Your task to perform on an android device: open app "VLC for Android" Image 0: 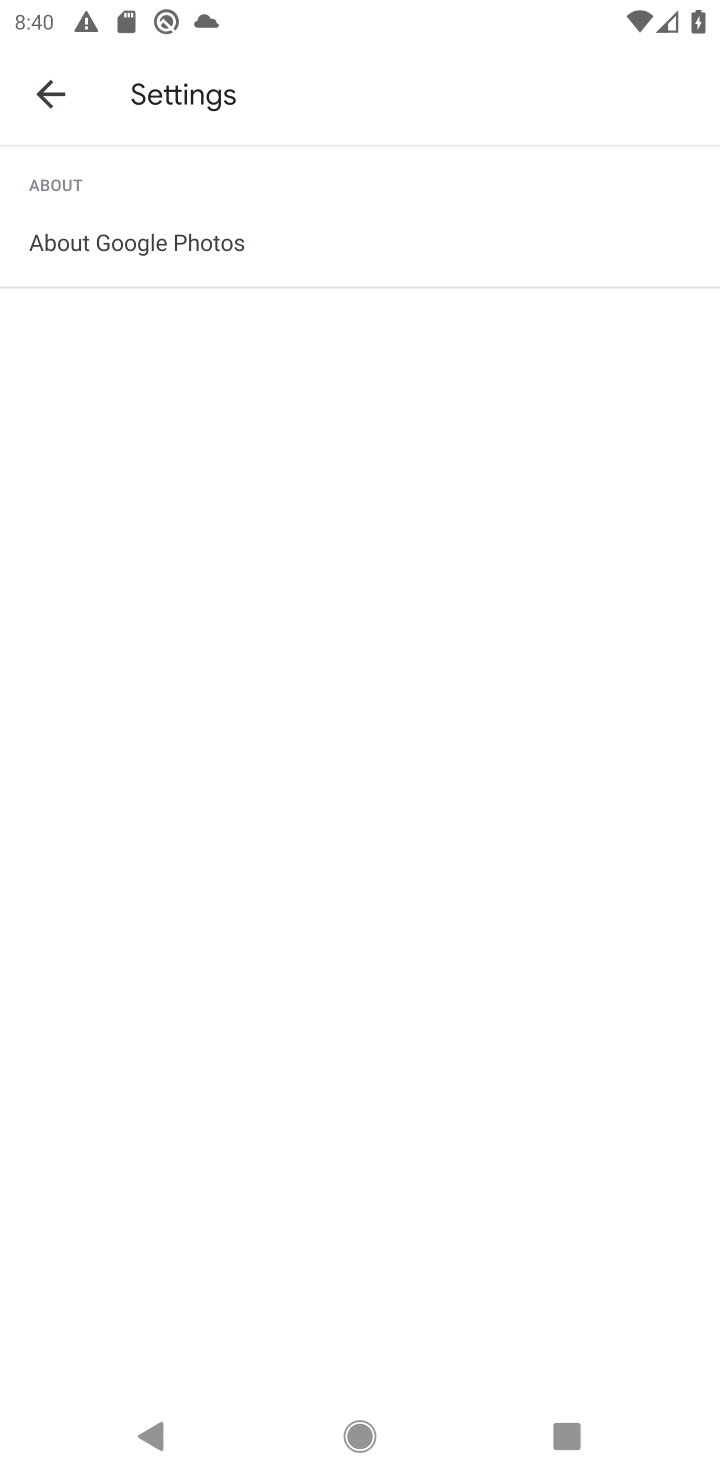
Step 0: press home button
Your task to perform on an android device: open app "VLC for Android" Image 1: 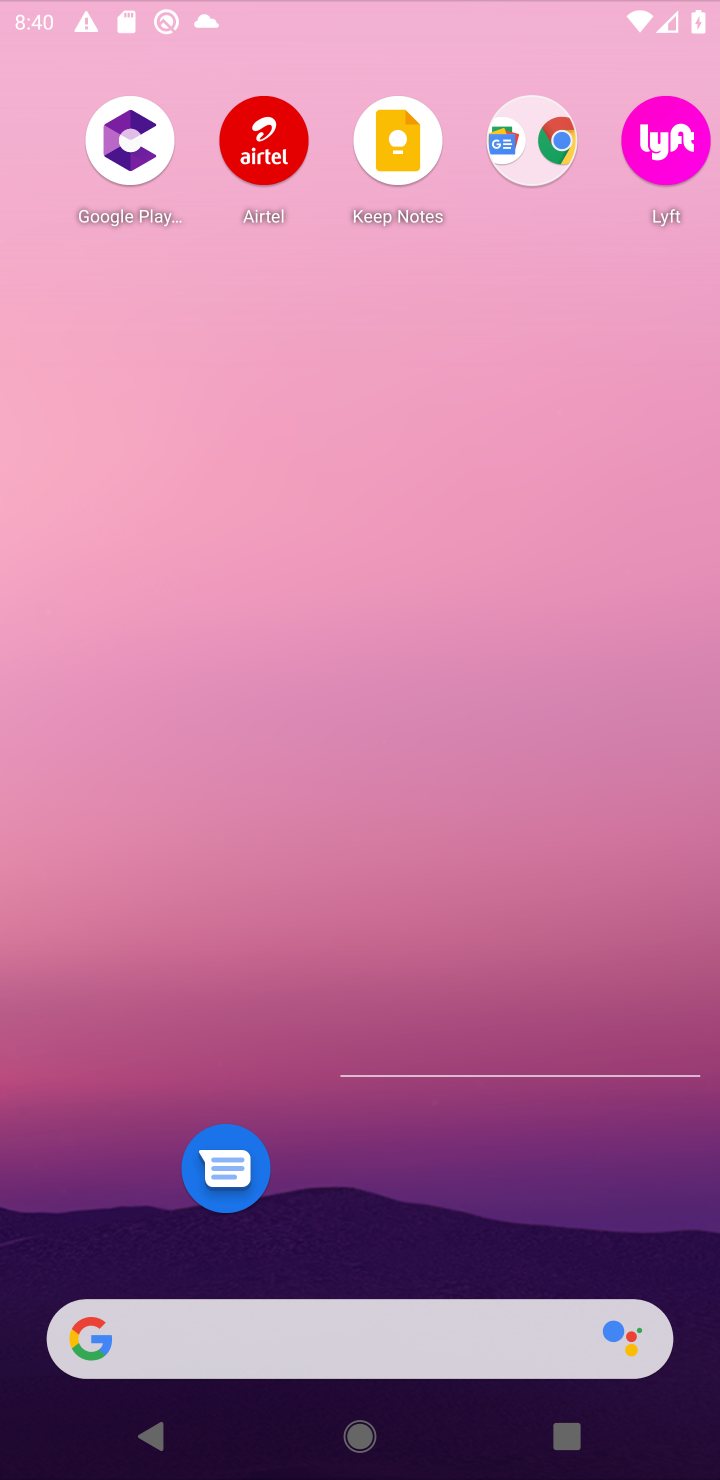
Step 1: drag from (434, 1327) to (620, 8)
Your task to perform on an android device: open app "VLC for Android" Image 2: 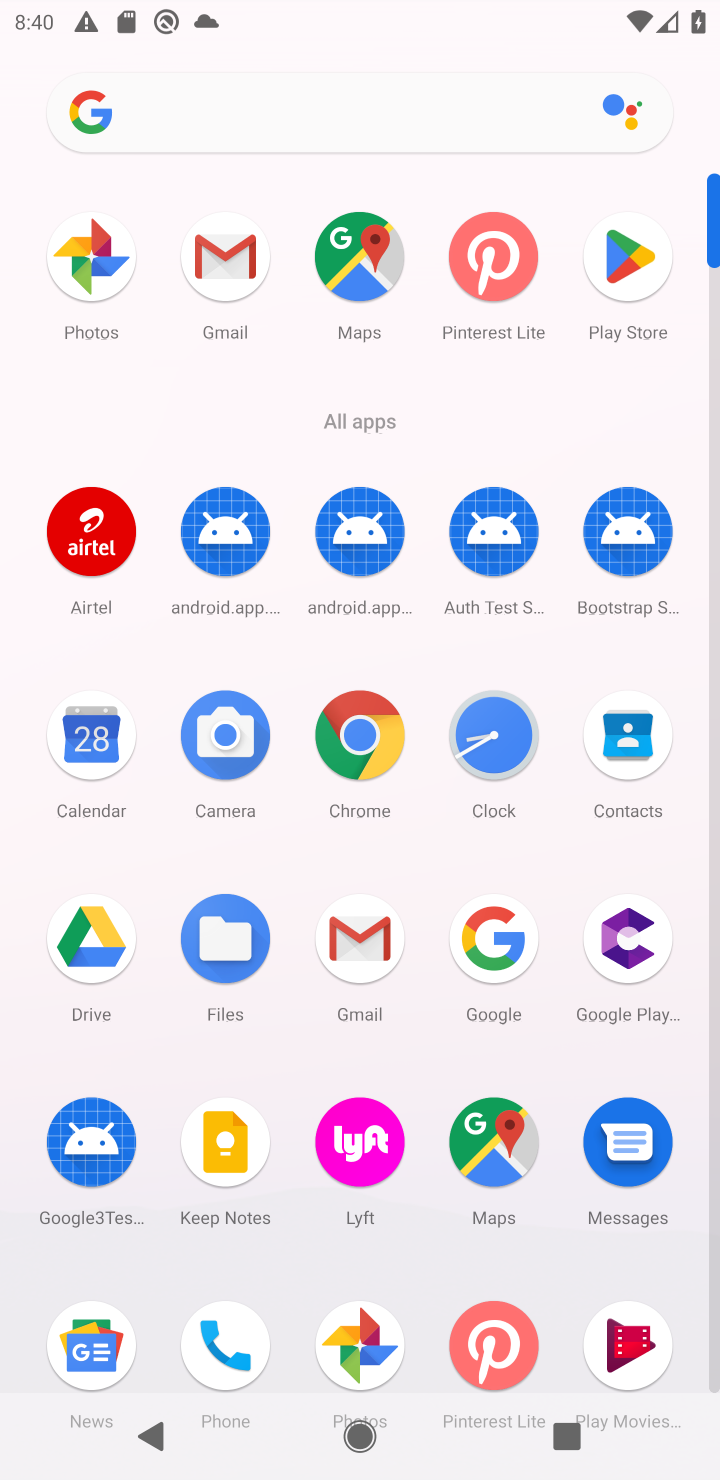
Step 2: click (635, 282)
Your task to perform on an android device: open app "VLC for Android" Image 3: 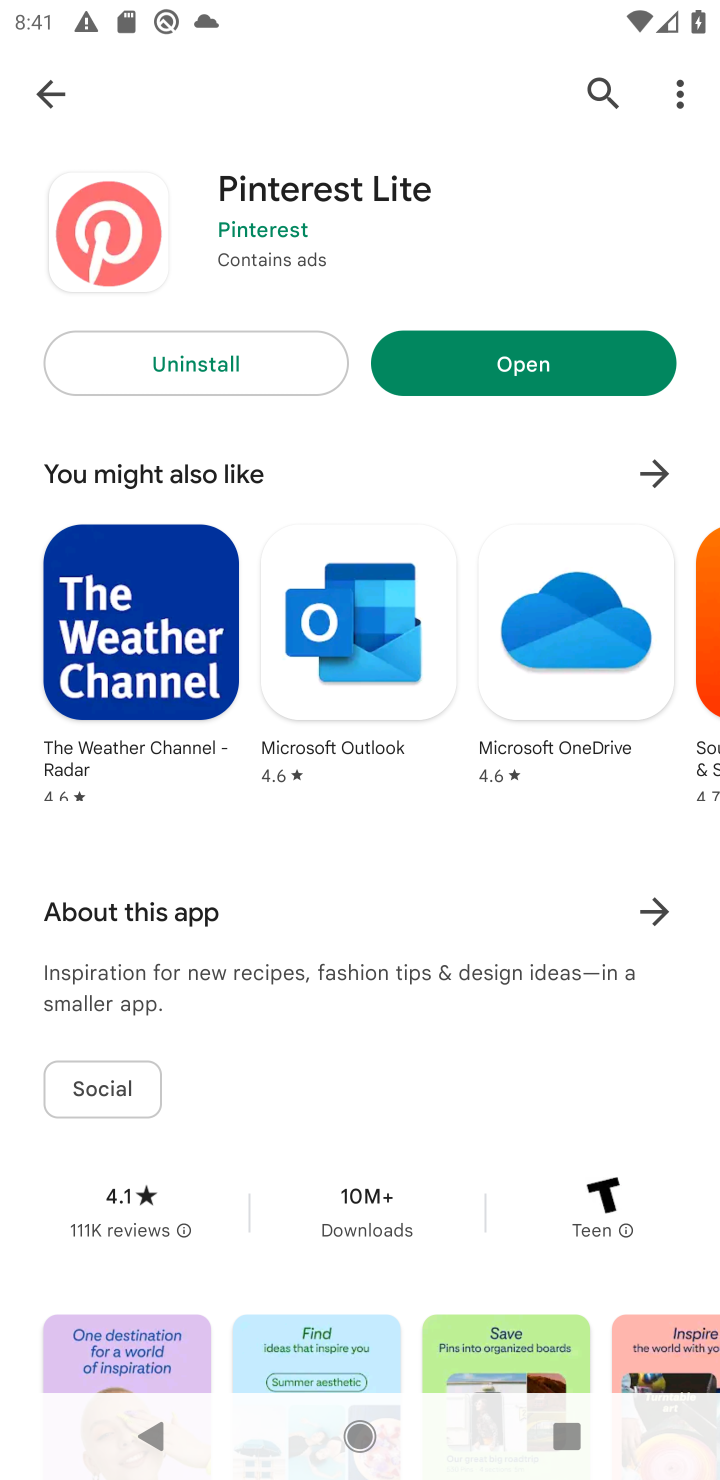
Step 3: click (588, 91)
Your task to perform on an android device: open app "VLC for Android" Image 4: 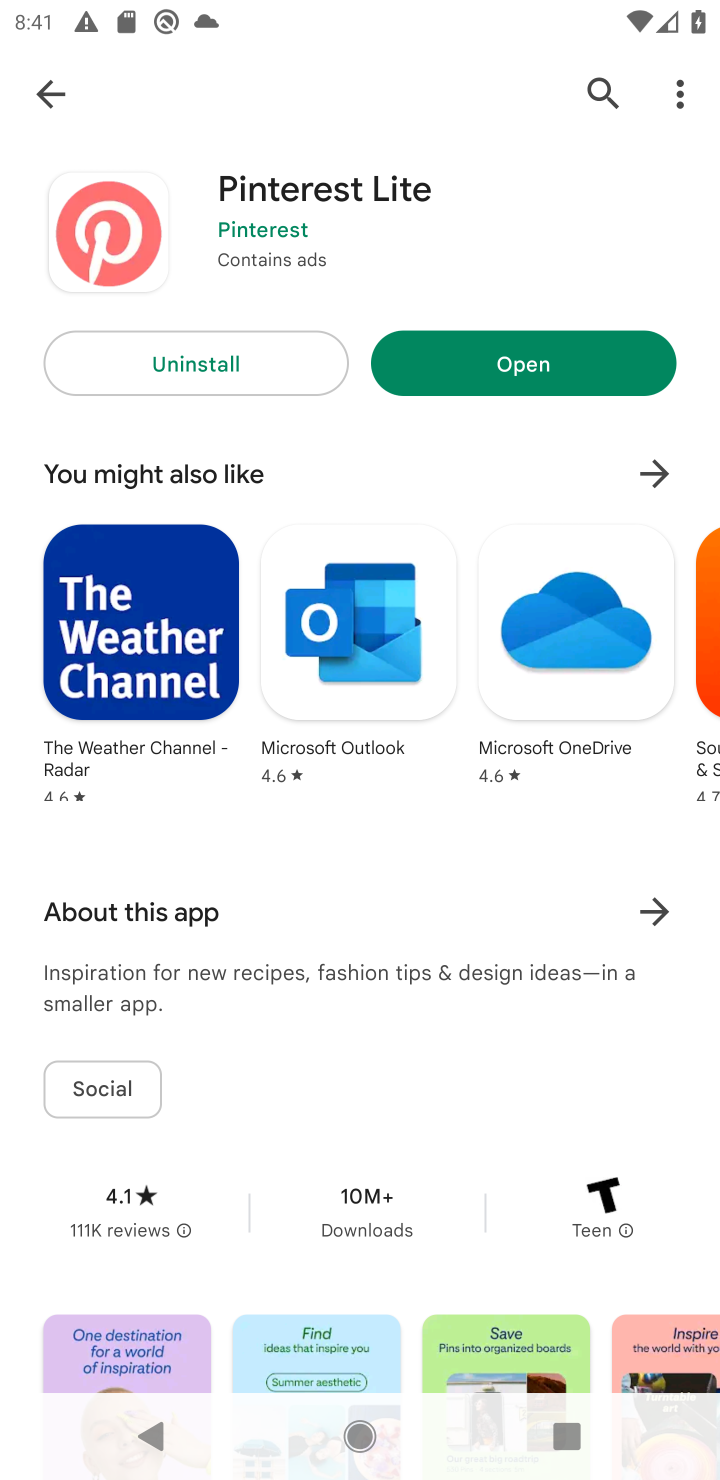
Step 4: click (601, 81)
Your task to perform on an android device: open app "VLC for Android" Image 5: 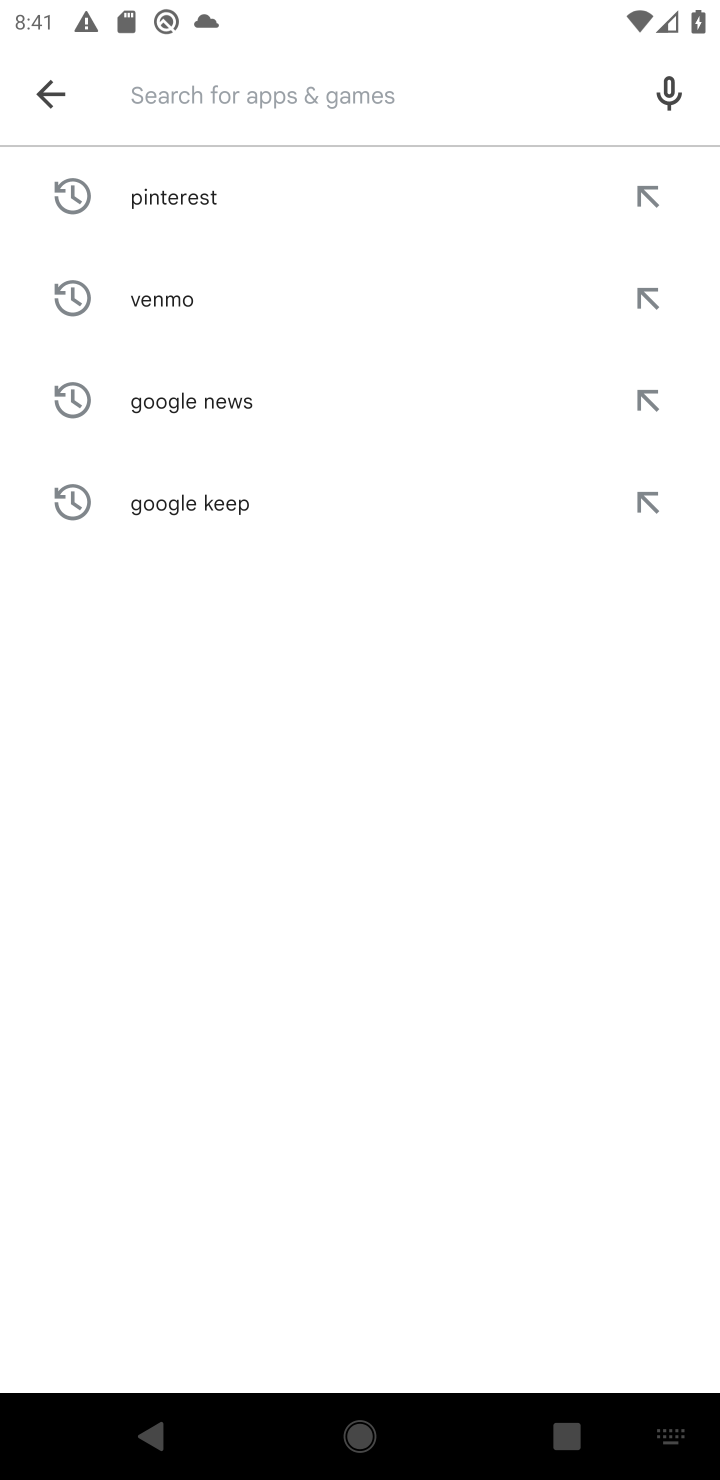
Step 5: type "vlc for android"
Your task to perform on an android device: open app "VLC for Android" Image 6: 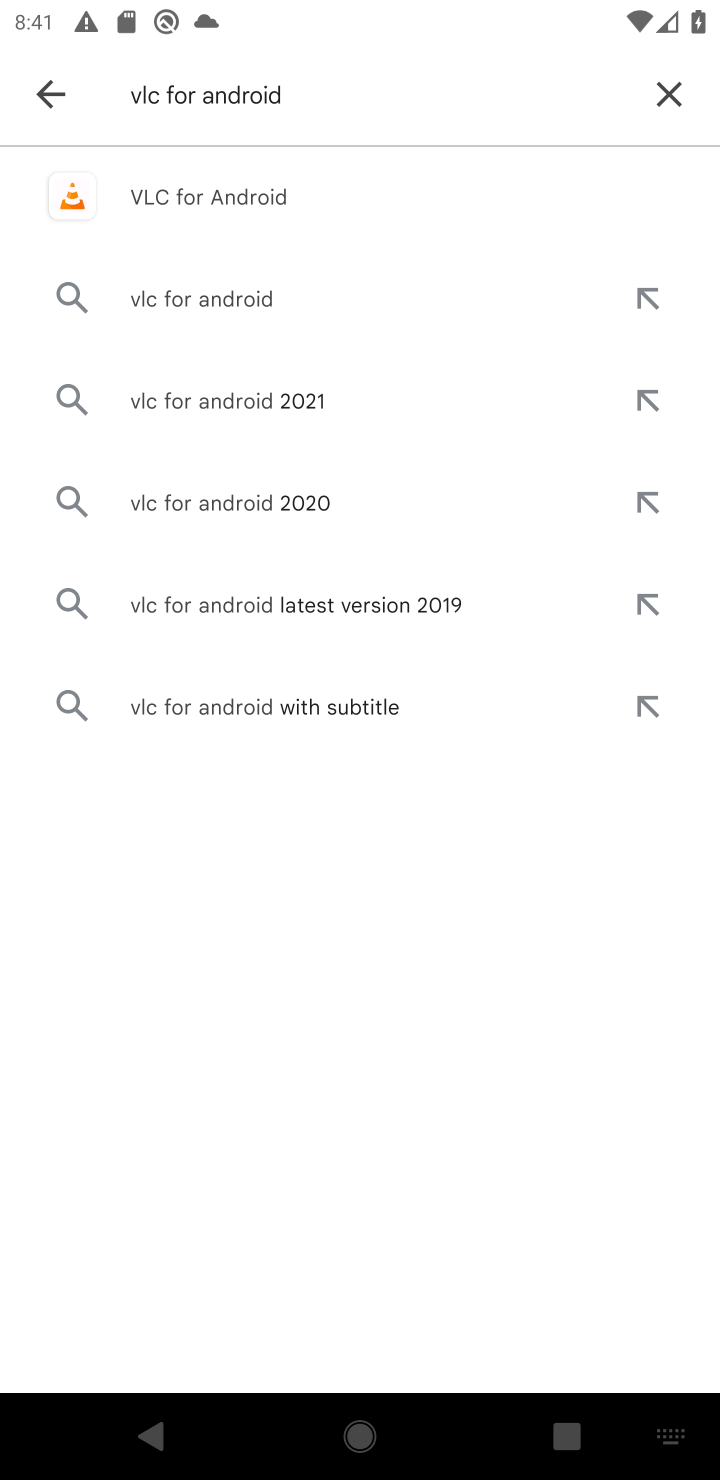
Step 6: click (244, 185)
Your task to perform on an android device: open app "VLC for Android" Image 7: 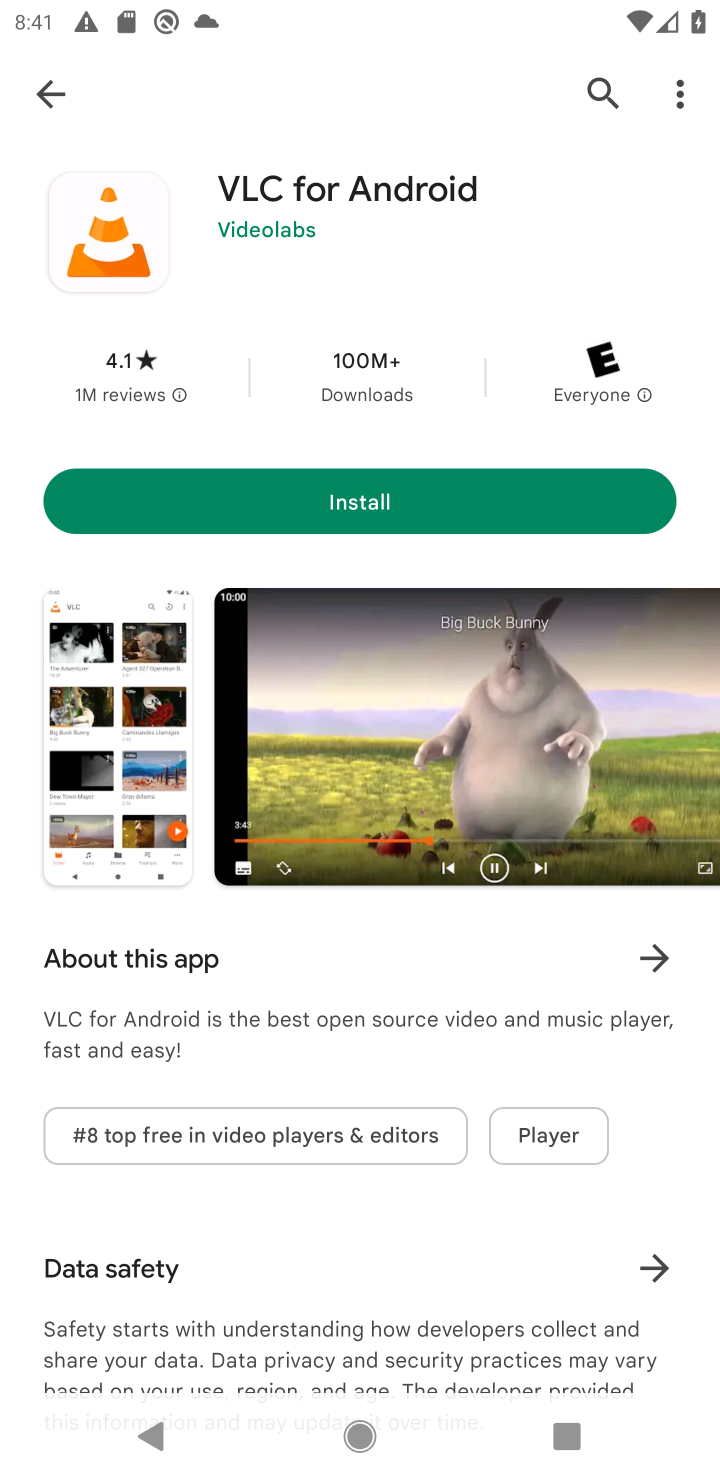
Step 7: task complete